Your task to perform on an android device: See recent photos Image 0: 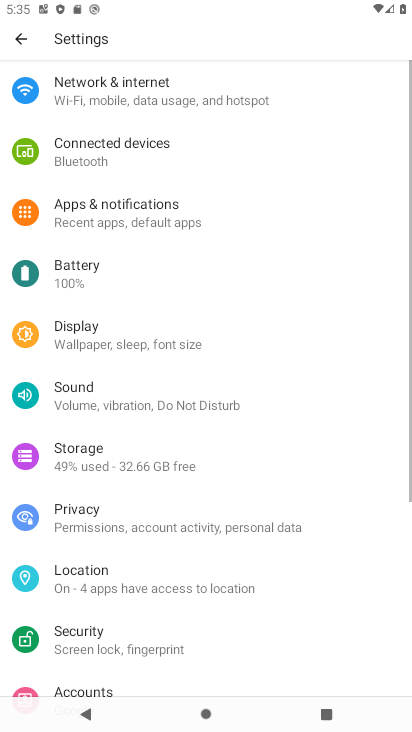
Step 0: press home button
Your task to perform on an android device: See recent photos Image 1: 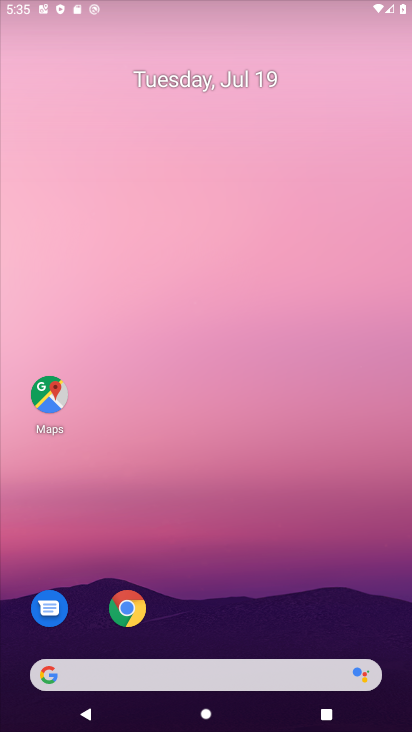
Step 1: drag from (262, 695) to (280, 15)
Your task to perform on an android device: See recent photos Image 2: 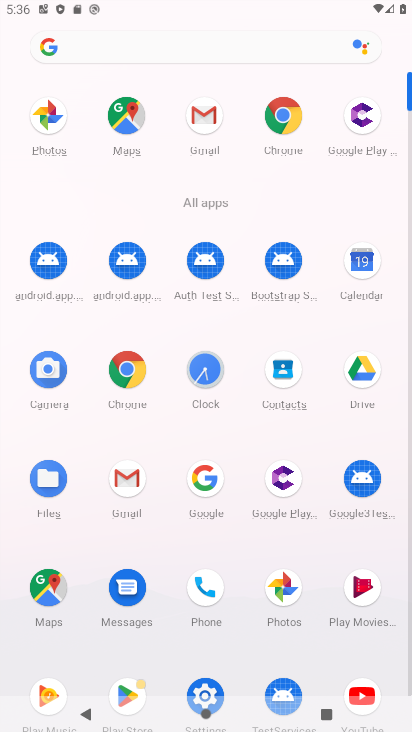
Step 2: click (280, 579)
Your task to perform on an android device: See recent photos Image 3: 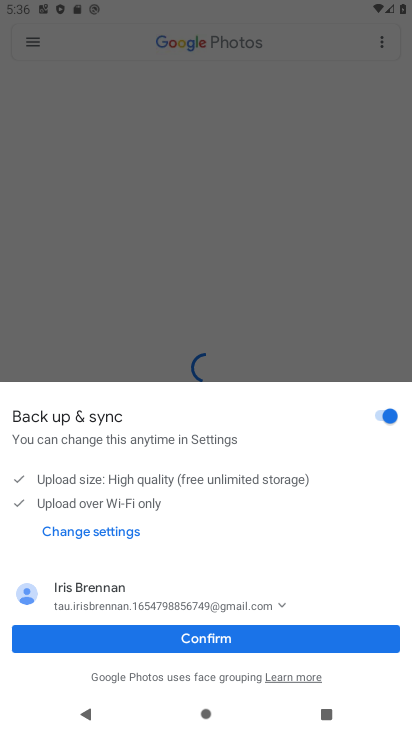
Step 3: click (190, 638)
Your task to perform on an android device: See recent photos Image 4: 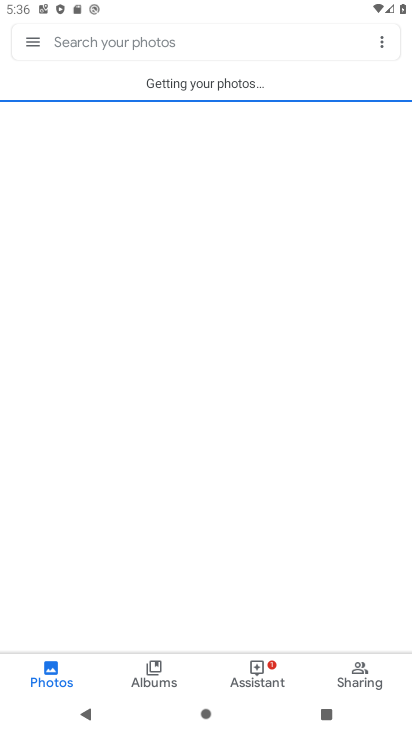
Step 4: task complete